Your task to perform on an android device: snooze an email in the gmail app Image 0: 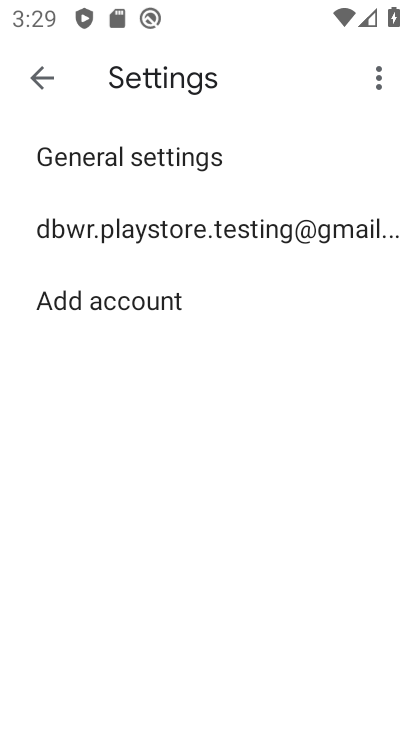
Step 0: click (34, 74)
Your task to perform on an android device: snooze an email in the gmail app Image 1: 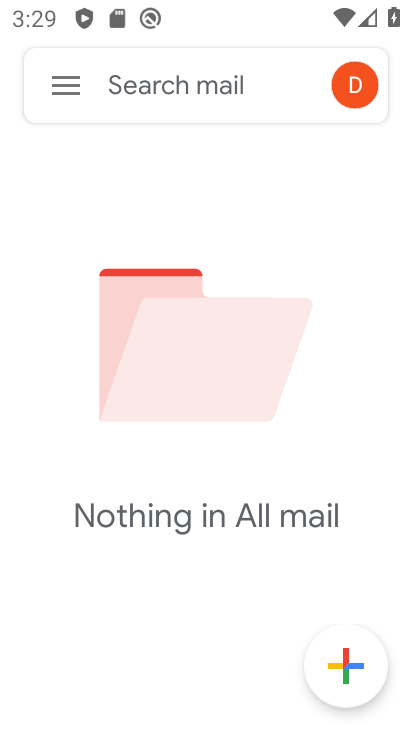
Step 1: press back button
Your task to perform on an android device: snooze an email in the gmail app Image 2: 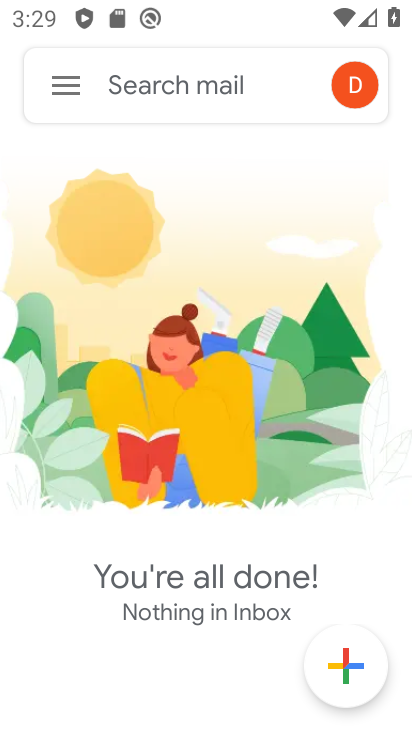
Step 2: press home button
Your task to perform on an android device: snooze an email in the gmail app Image 3: 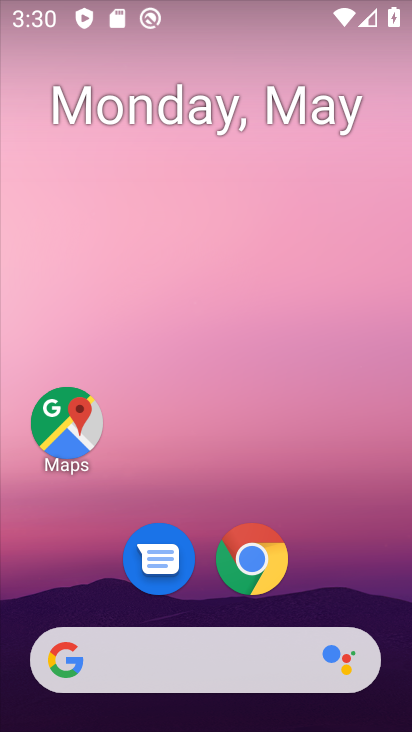
Step 3: drag from (330, 713) to (222, 19)
Your task to perform on an android device: snooze an email in the gmail app Image 4: 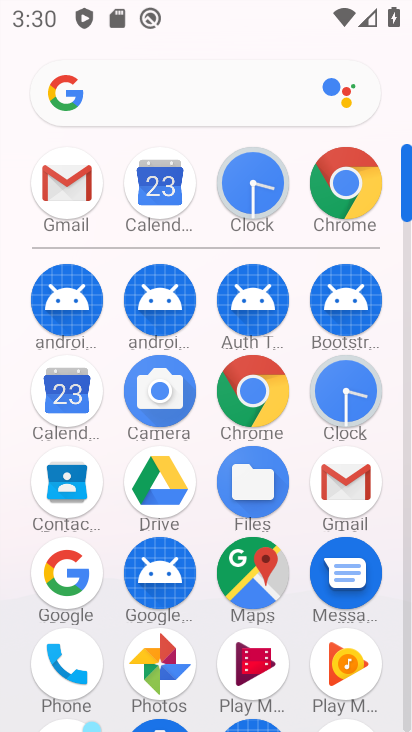
Step 4: click (58, 185)
Your task to perform on an android device: snooze an email in the gmail app Image 5: 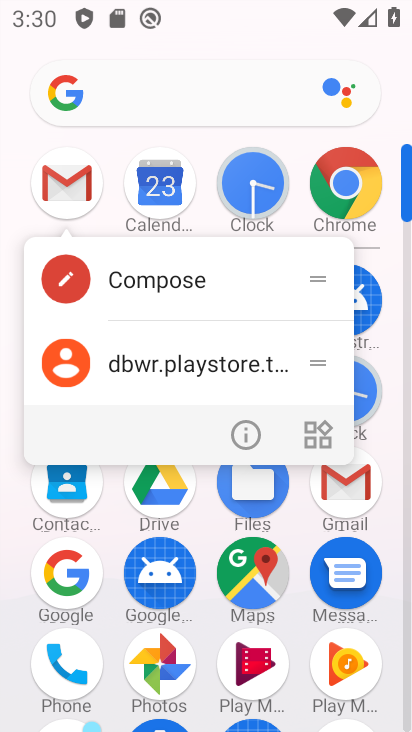
Step 5: click (59, 184)
Your task to perform on an android device: snooze an email in the gmail app Image 6: 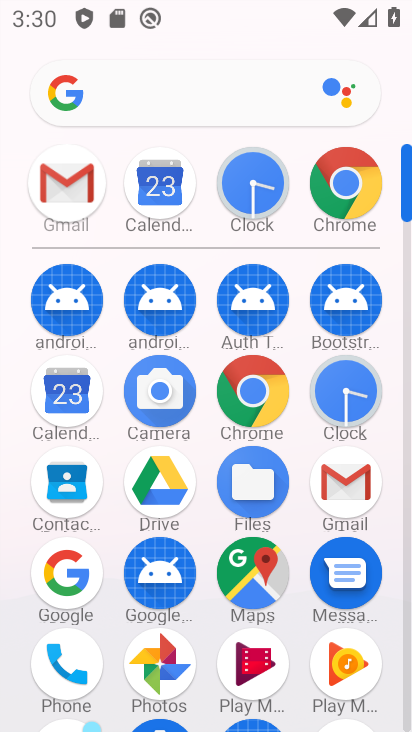
Step 6: click (59, 183)
Your task to perform on an android device: snooze an email in the gmail app Image 7: 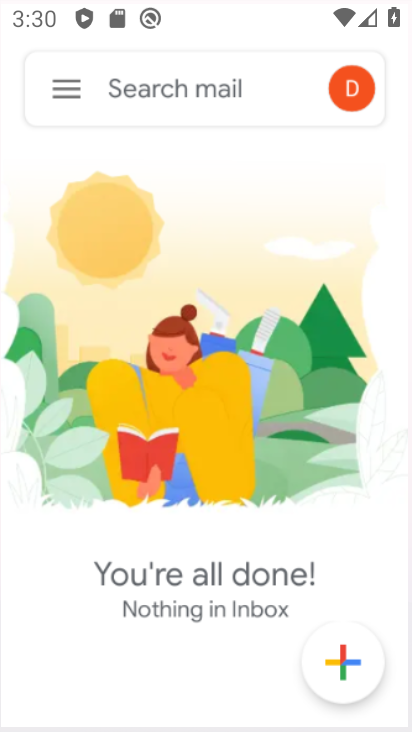
Step 7: click (60, 182)
Your task to perform on an android device: snooze an email in the gmail app Image 8: 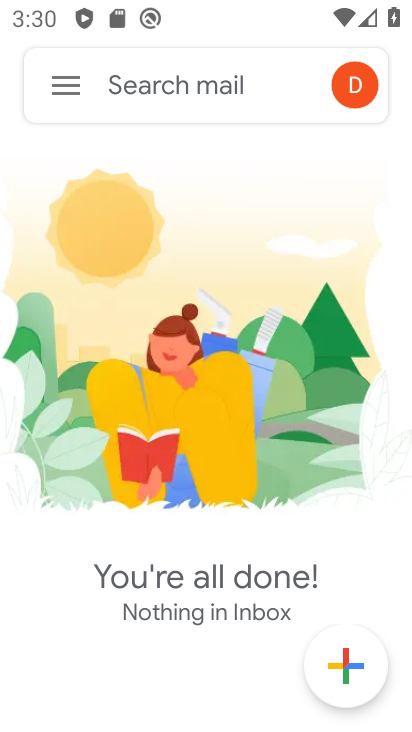
Step 8: click (60, 182)
Your task to perform on an android device: snooze an email in the gmail app Image 9: 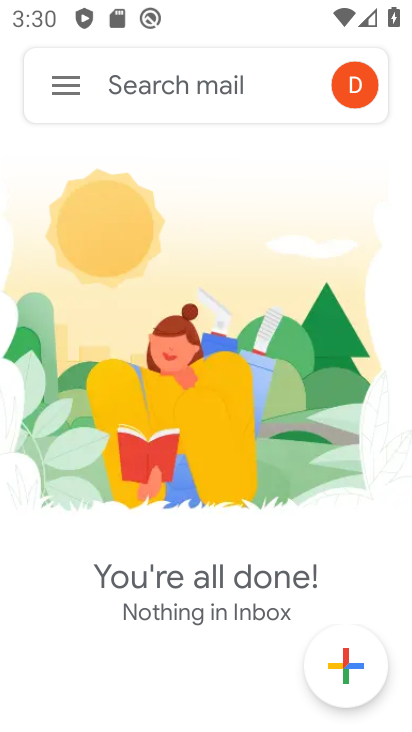
Step 9: click (60, 78)
Your task to perform on an android device: snooze an email in the gmail app Image 10: 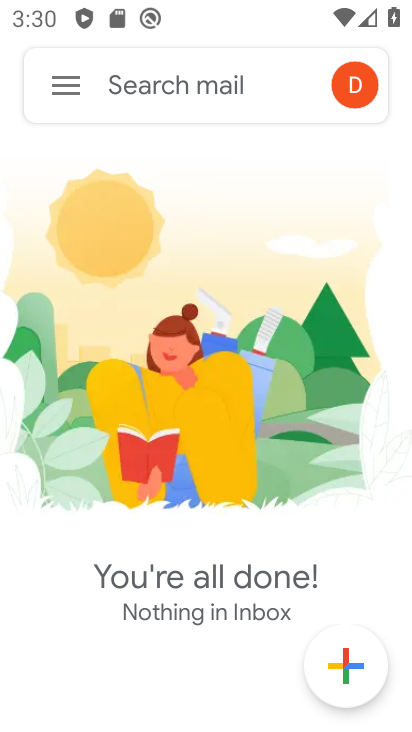
Step 10: click (60, 78)
Your task to perform on an android device: snooze an email in the gmail app Image 11: 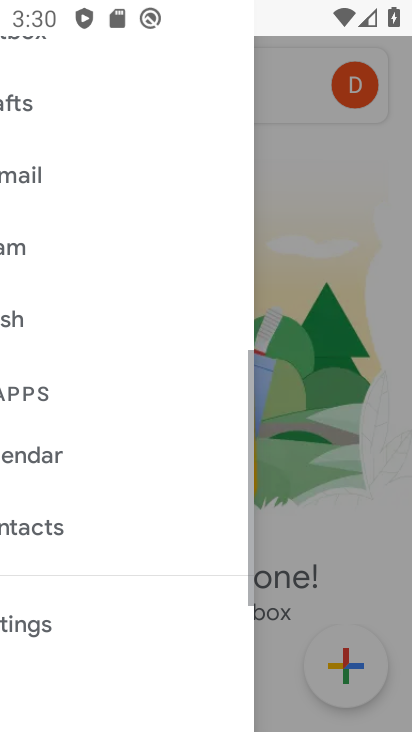
Step 11: click (60, 78)
Your task to perform on an android device: snooze an email in the gmail app Image 12: 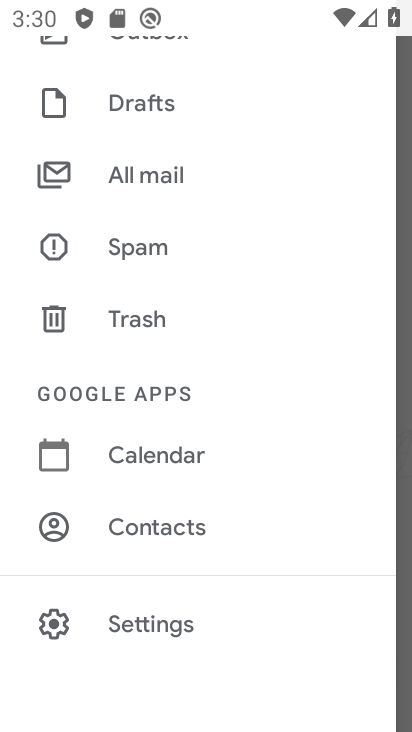
Step 12: click (134, 177)
Your task to perform on an android device: snooze an email in the gmail app Image 13: 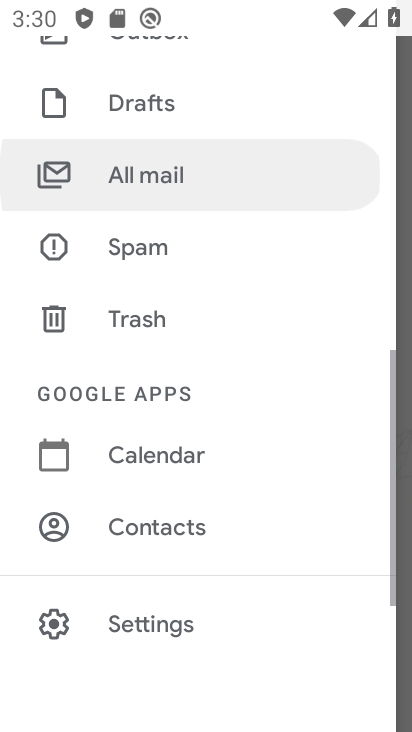
Step 13: click (134, 177)
Your task to perform on an android device: snooze an email in the gmail app Image 14: 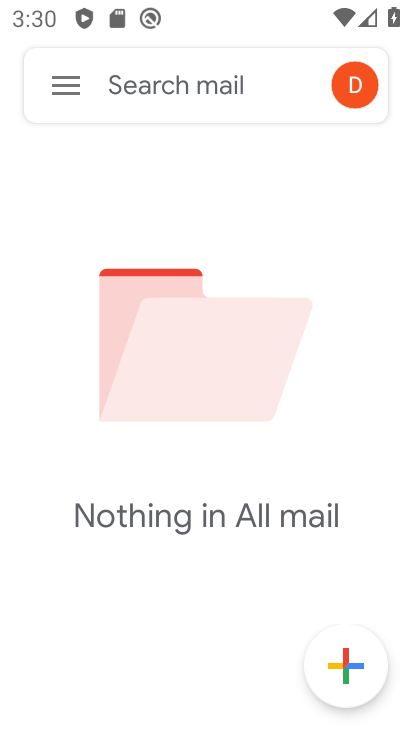
Step 14: task complete